Your task to perform on an android device: change the upload size in google photos Image 0: 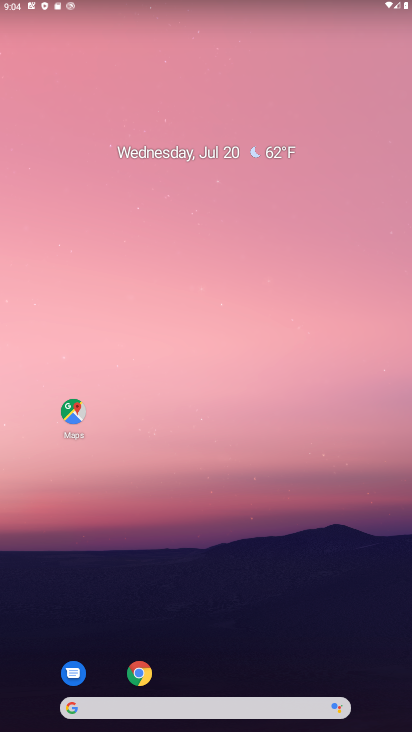
Step 0: click (269, 187)
Your task to perform on an android device: change the upload size in google photos Image 1: 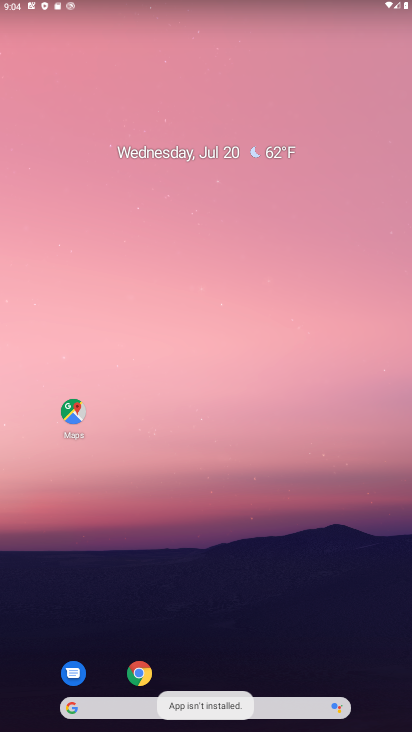
Step 1: click (327, 2)
Your task to perform on an android device: change the upload size in google photos Image 2: 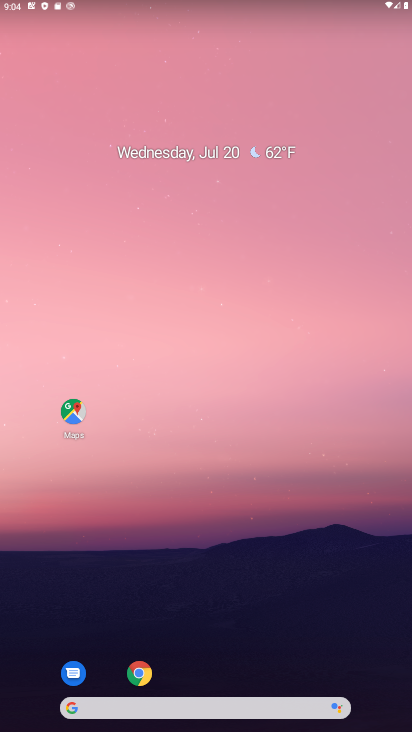
Step 2: drag from (376, 712) to (322, 130)
Your task to perform on an android device: change the upload size in google photos Image 3: 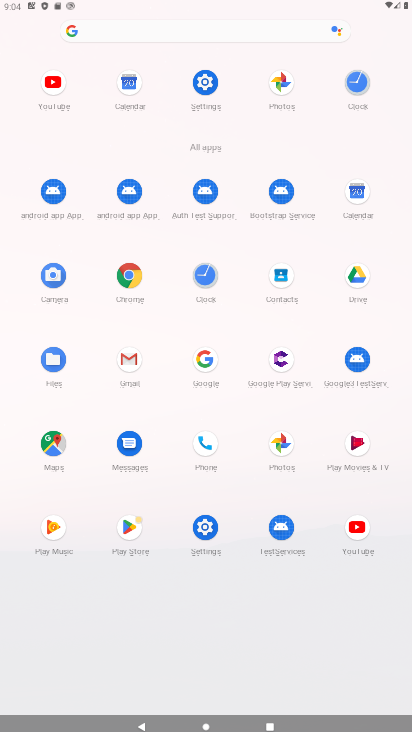
Step 3: click (280, 442)
Your task to perform on an android device: change the upload size in google photos Image 4: 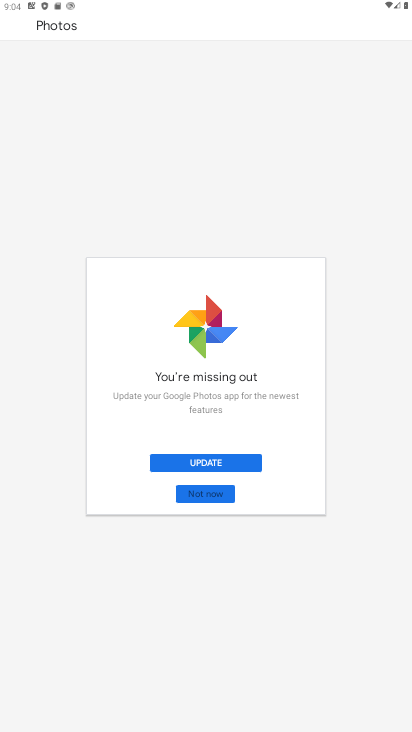
Step 4: click (224, 461)
Your task to perform on an android device: change the upload size in google photos Image 5: 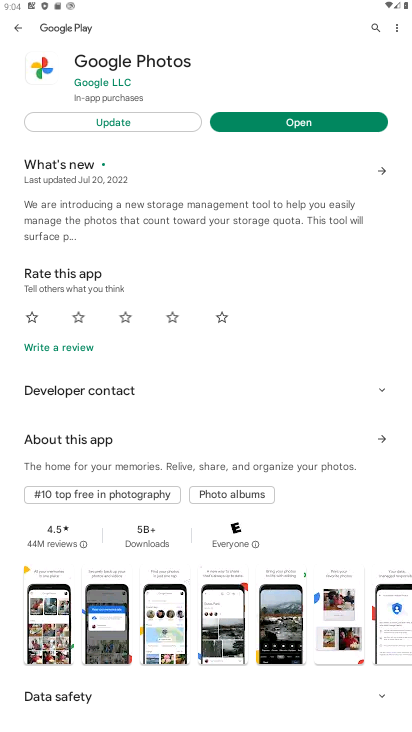
Step 5: click (163, 115)
Your task to perform on an android device: change the upload size in google photos Image 6: 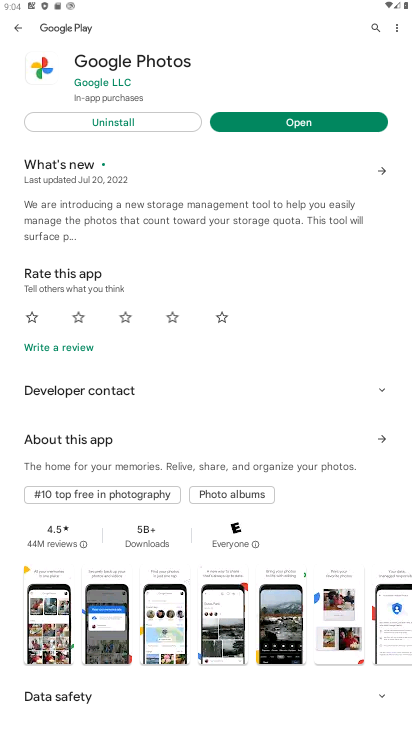
Step 6: click (250, 126)
Your task to perform on an android device: change the upload size in google photos Image 7: 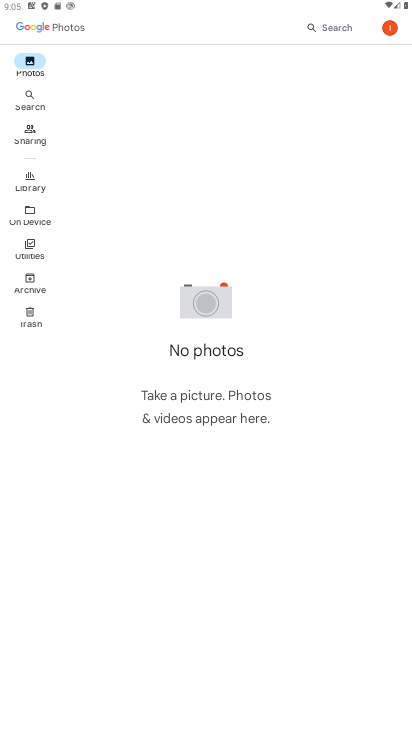
Step 7: task complete